Your task to perform on an android device: What's on my calendar today? Image 0: 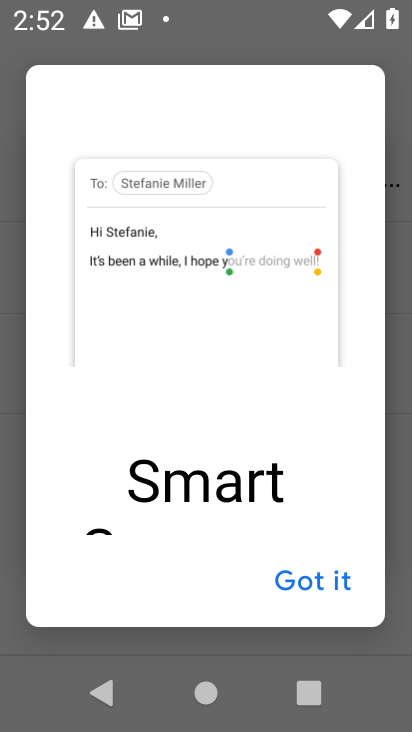
Step 0: click (324, 590)
Your task to perform on an android device: What's on my calendar today? Image 1: 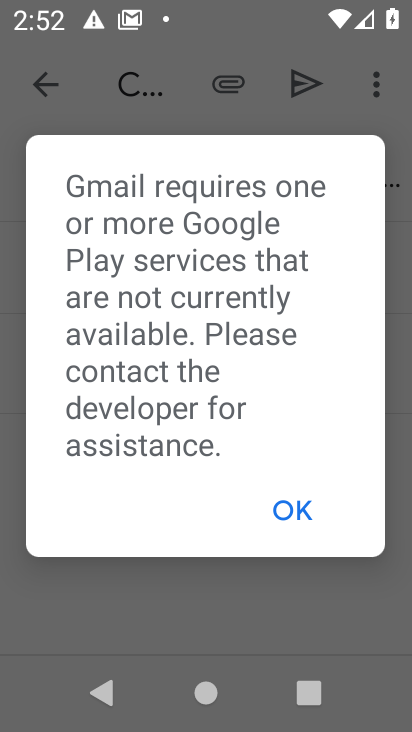
Step 1: click (301, 524)
Your task to perform on an android device: What's on my calendar today? Image 2: 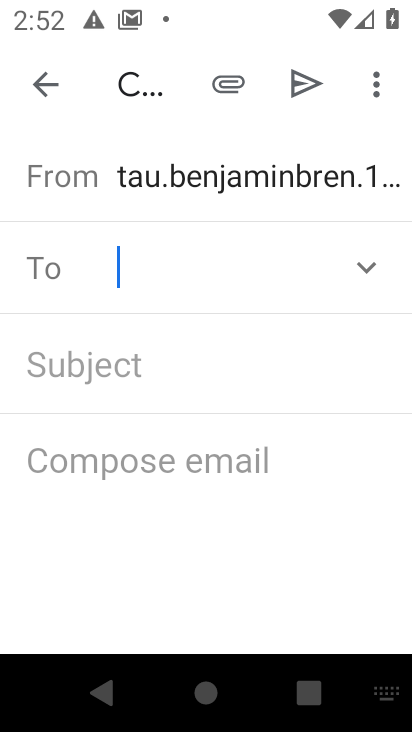
Step 2: press home button
Your task to perform on an android device: What's on my calendar today? Image 3: 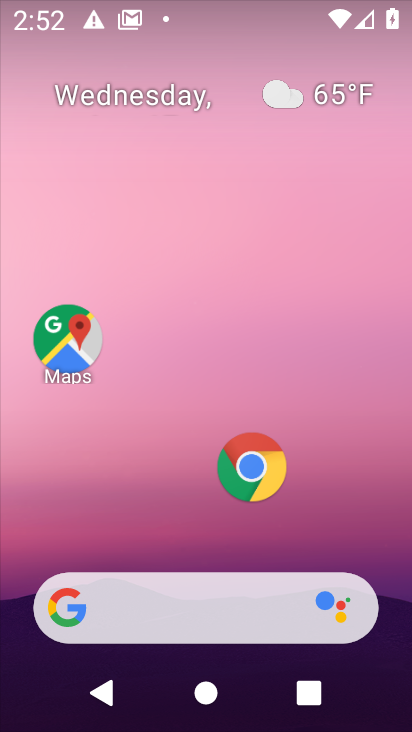
Step 3: click (237, 614)
Your task to perform on an android device: What's on my calendar today? Image 4: 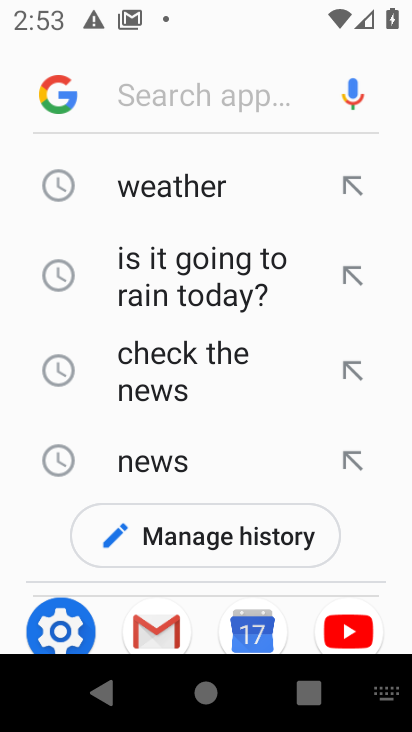
Step 4: type "What's on my calendar today?"
Your task to perform on an android device: What's on my calendar today? Image 5: 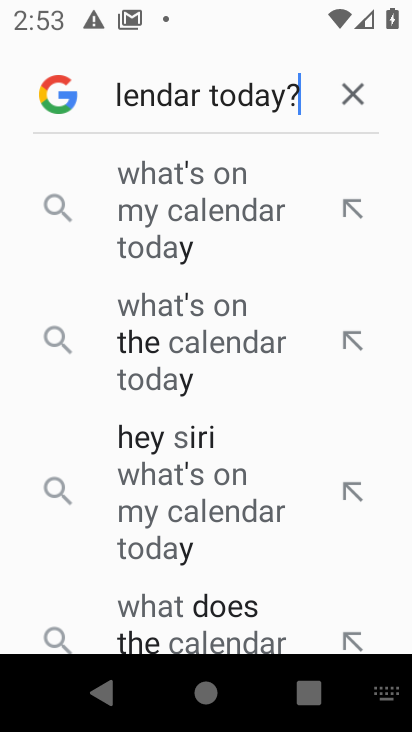
Step 5: type ""
Your task to perform on an android device: What's on my calendar today? Image 6: 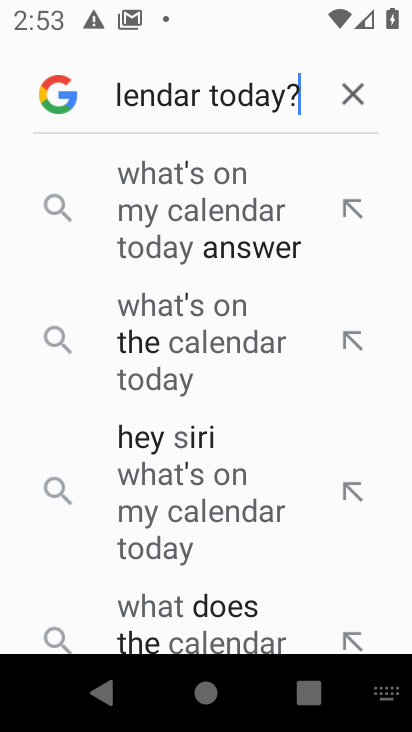
Step 6: task complete